Your task to perform on an android device: check google app version Image 0: 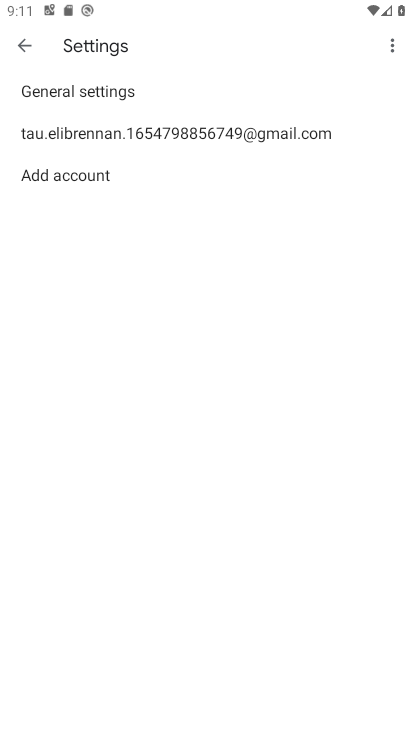
Step 0: press home button
Your task to perform on an android device: check google app version Image 1: 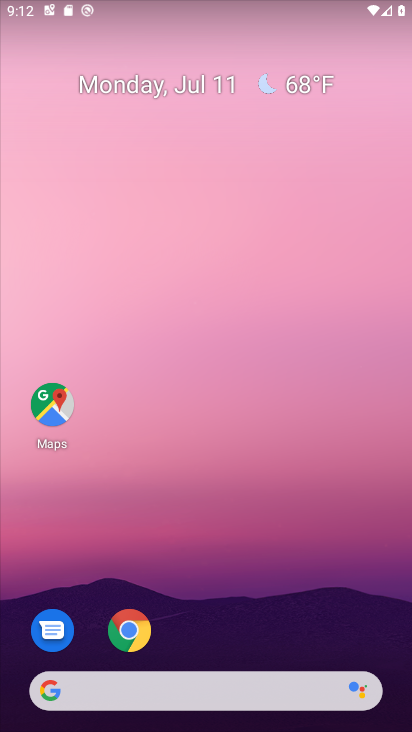
Step 1: click (43, 693)
Your task to perform on an android device: check google app version Image 2: 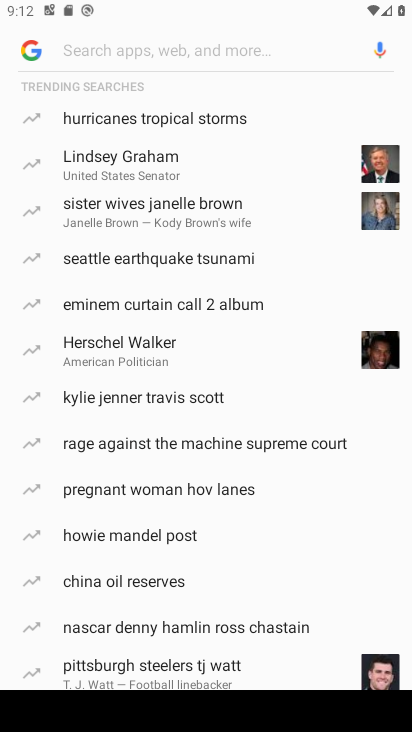
Step 2: click (27, 49)
Your task to perform on an android device: check google app version Image 3: 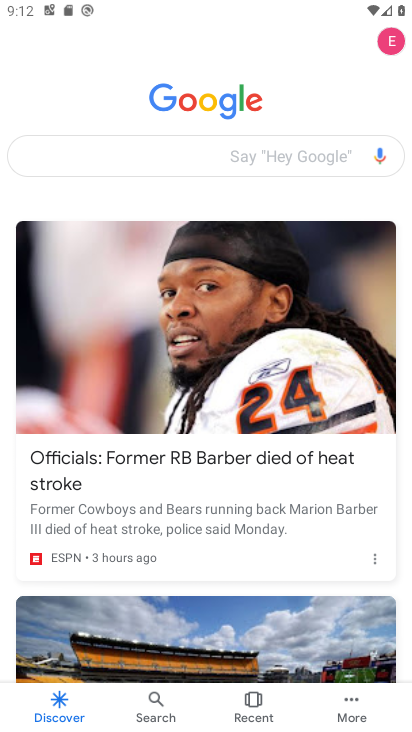
Step 3: click (356, 700)
Your task to perform on an android device: check google app version Image 4: 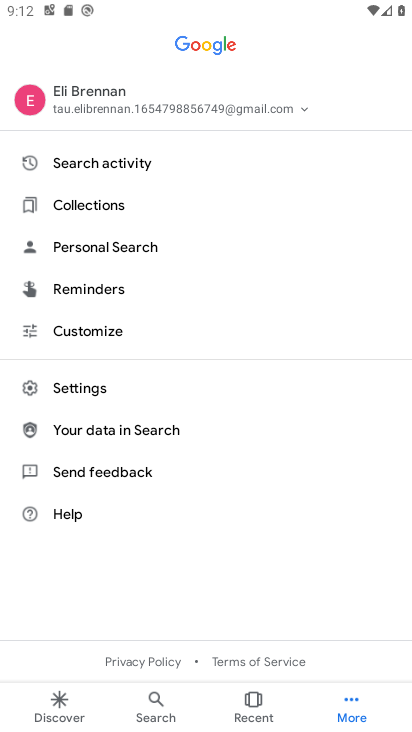
Step 4: click (102, 386)
Your task to perform on an android device: check google app version Image 5: 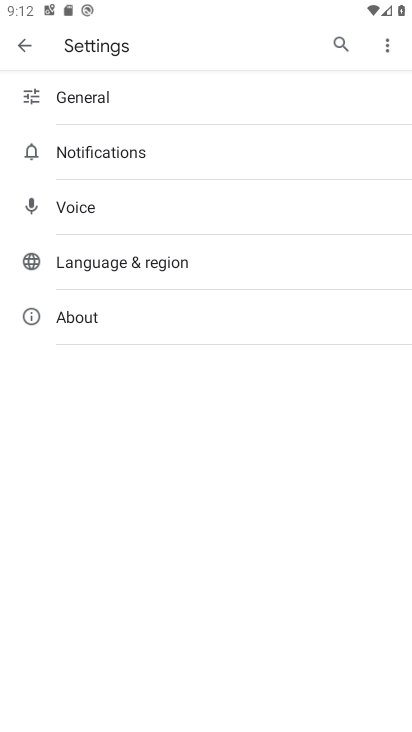
Step 5: click (120, 319)
Your task to perform on an android device: check google app version Image 6: 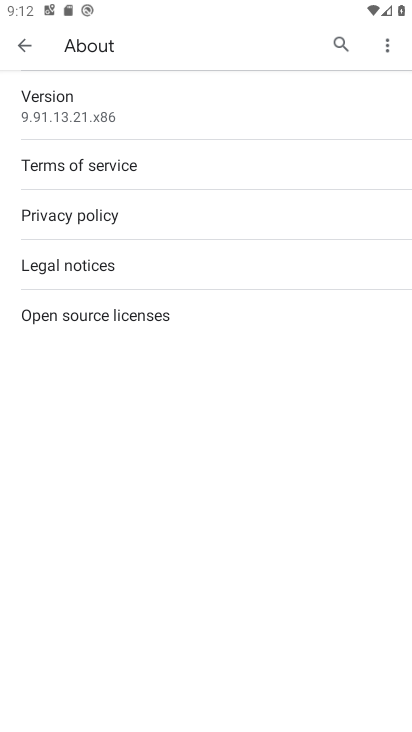
Step 6: task complete